Your task to perform on an android device: Open calendar and show me the first week of next month Image 0: 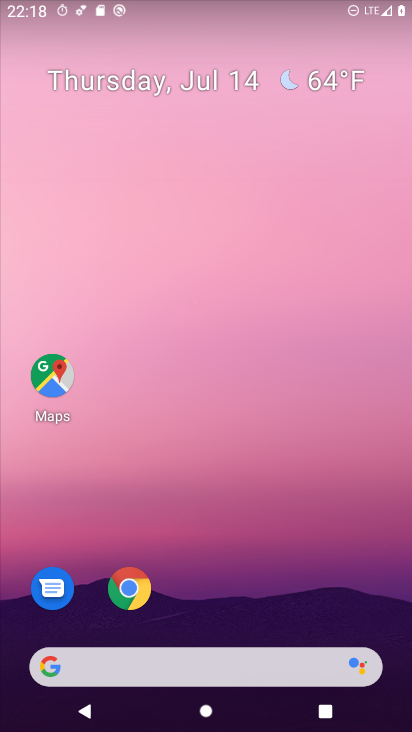
Step 0: drag from (346, 592) to (394, 32)
Your task to perform on an android device: Open calendar and show me the first week of next month Image 1: 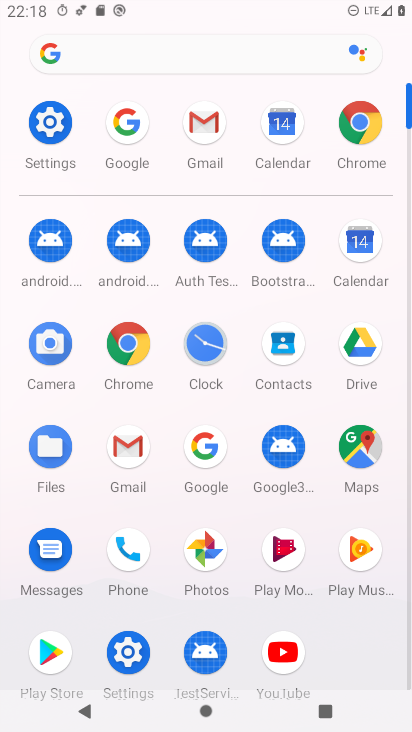
Step 1: click (355, 256)
Your task to perform on an android device: Open calendar and show me the first week of next month Image 2: 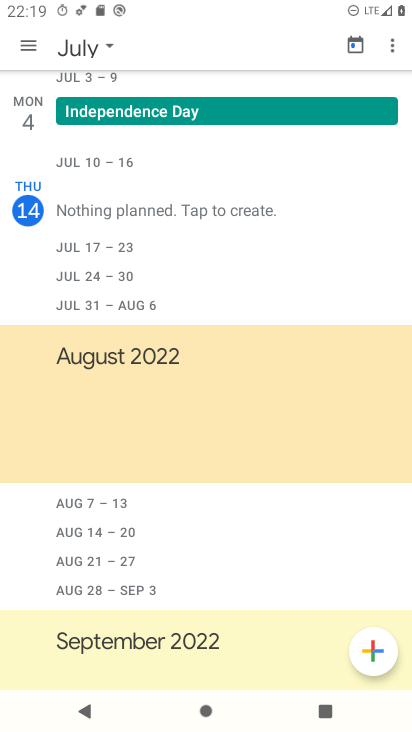
Step 2: click (105, 41)
Your task to perform on an android device: Open calendar and show me the first week of next month Image 3: 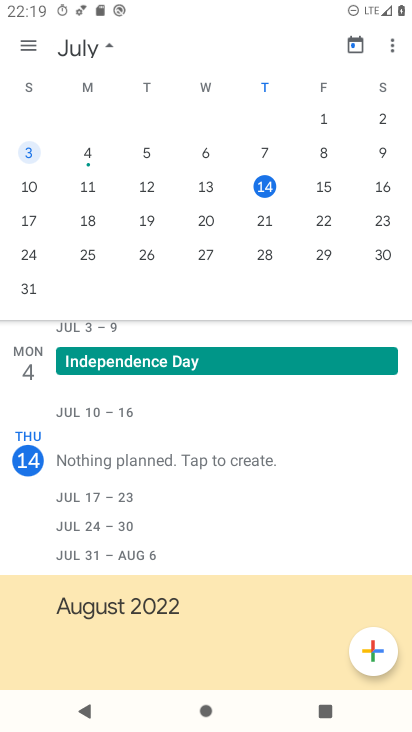
Step 3: task complete